Your task to perform on an android device: What's the news in Cambodia? Image 0: 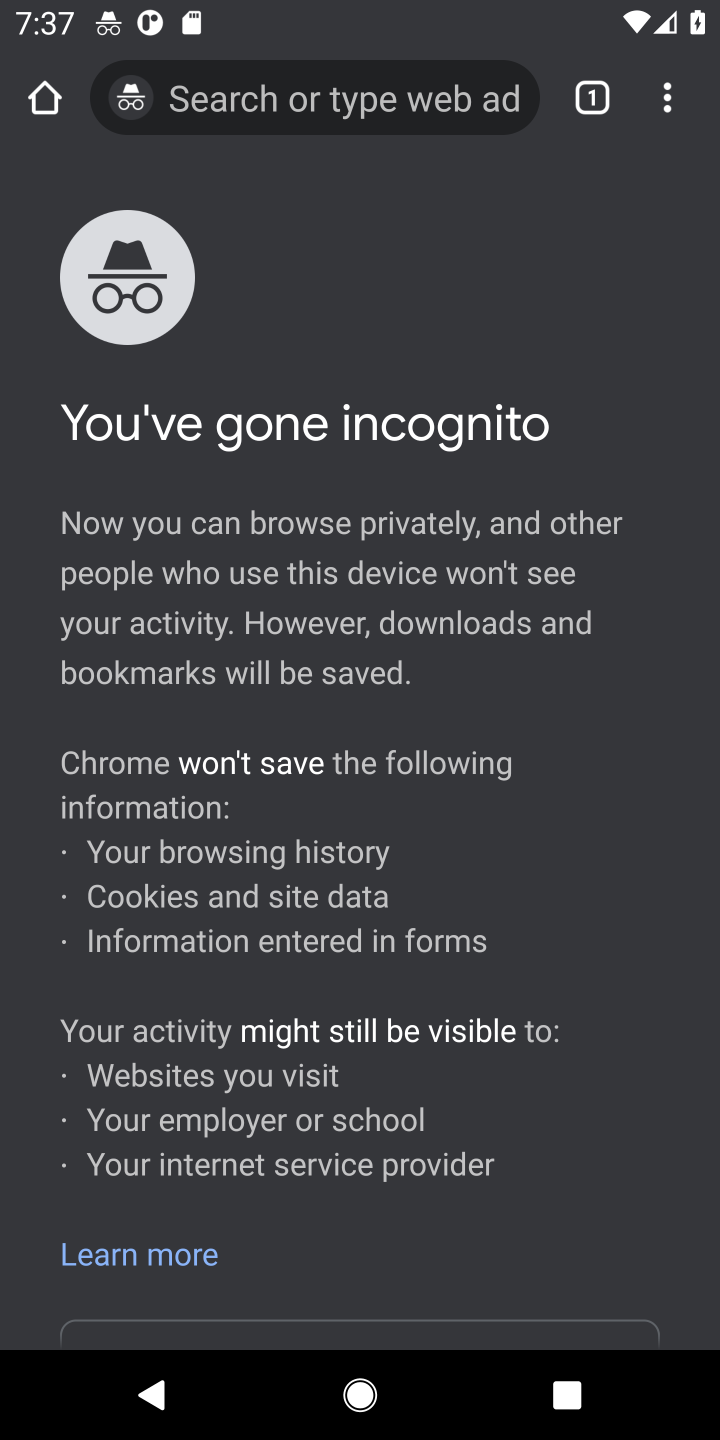
Step 0: press home button
Your task to perform on an android device: What's the news in Cambodia? Image 1: 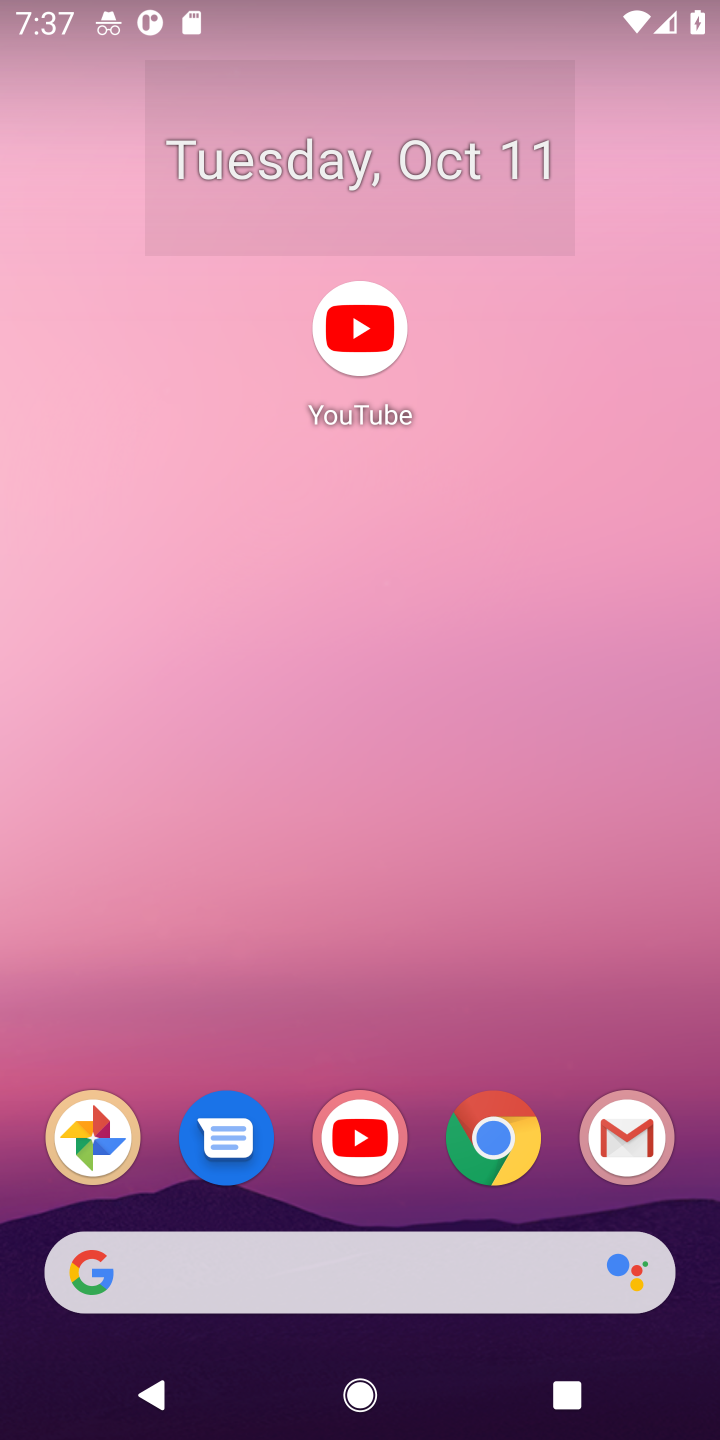
Step 1: click (475, 1130)
Your task to perform on an android device: What's the news in Cambodia? Image 2: 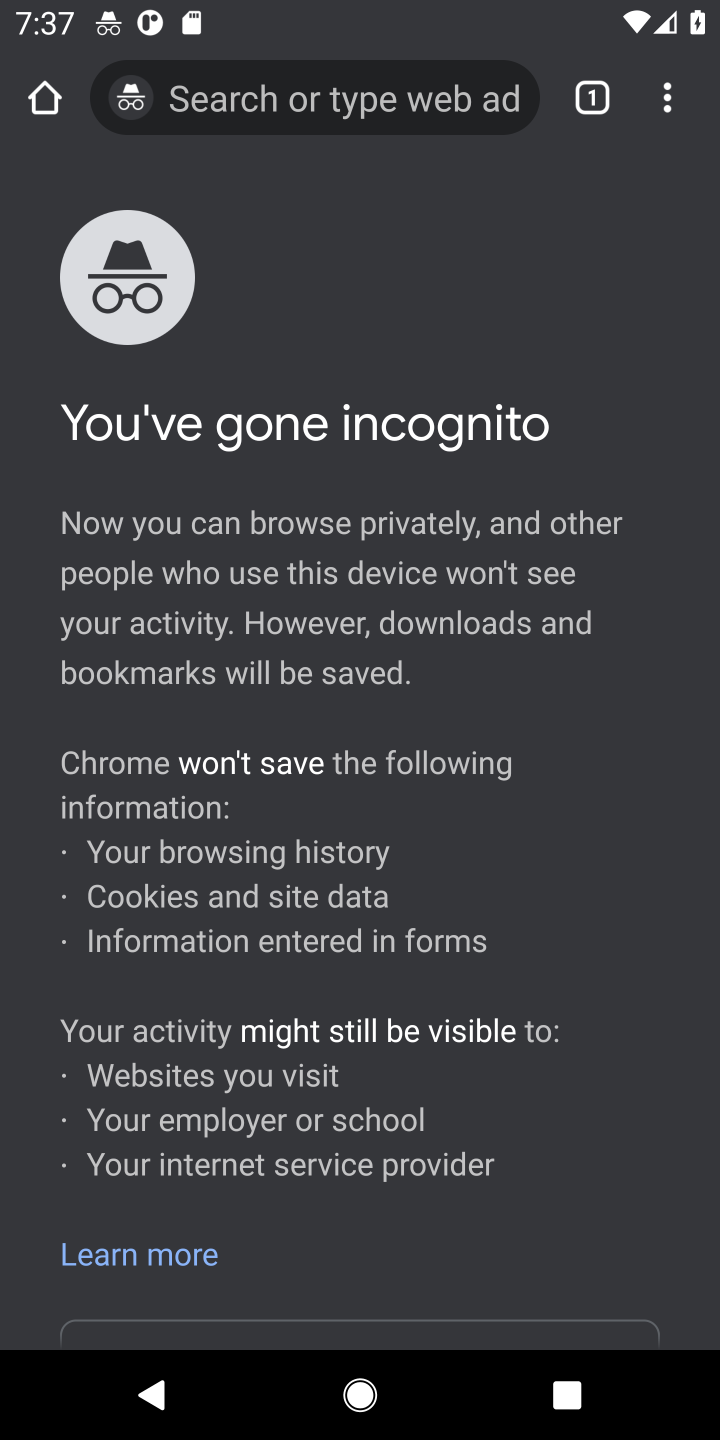
Step 2: click (298, 86)
Your task to perform on an android device: What's the news in Cambodia? Image 3: 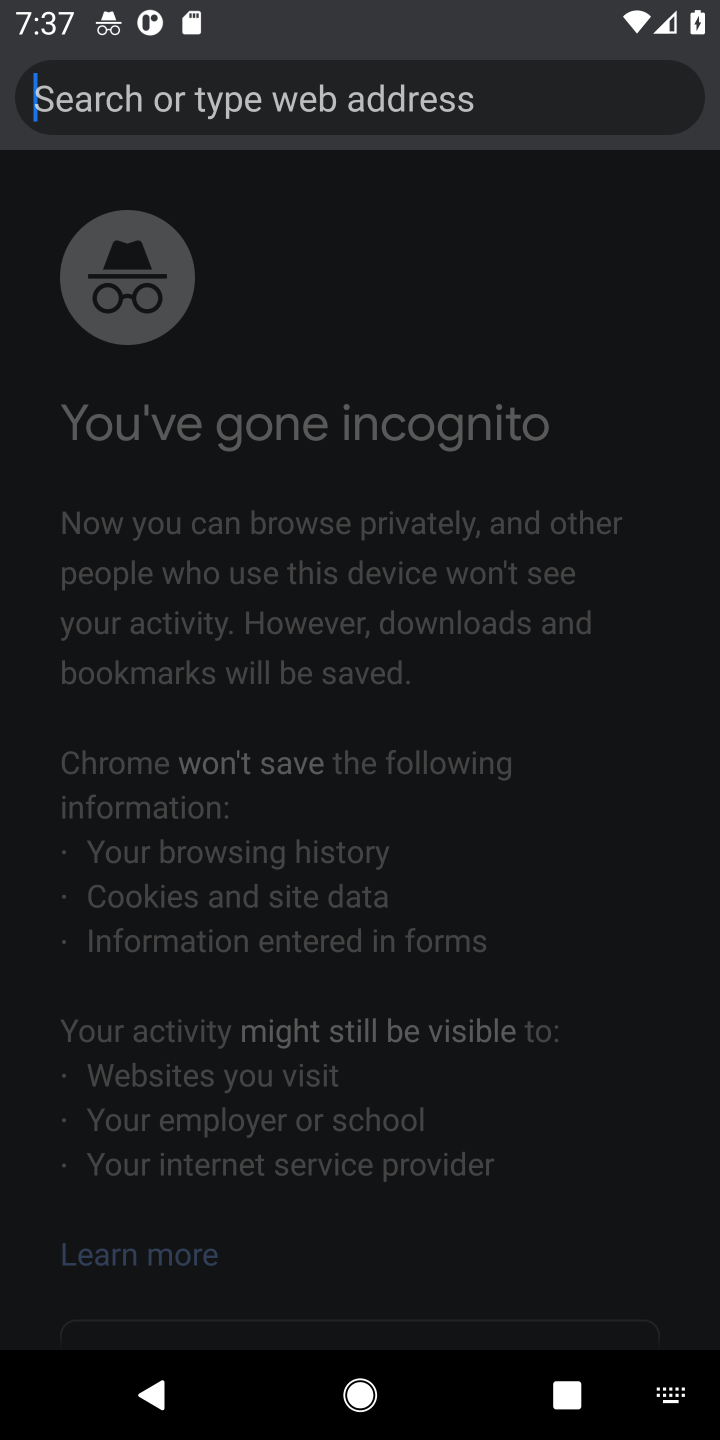
Step 3: click (293, 107)
Your task to perform on an android device: What's the news in Cambodia? Image 4: 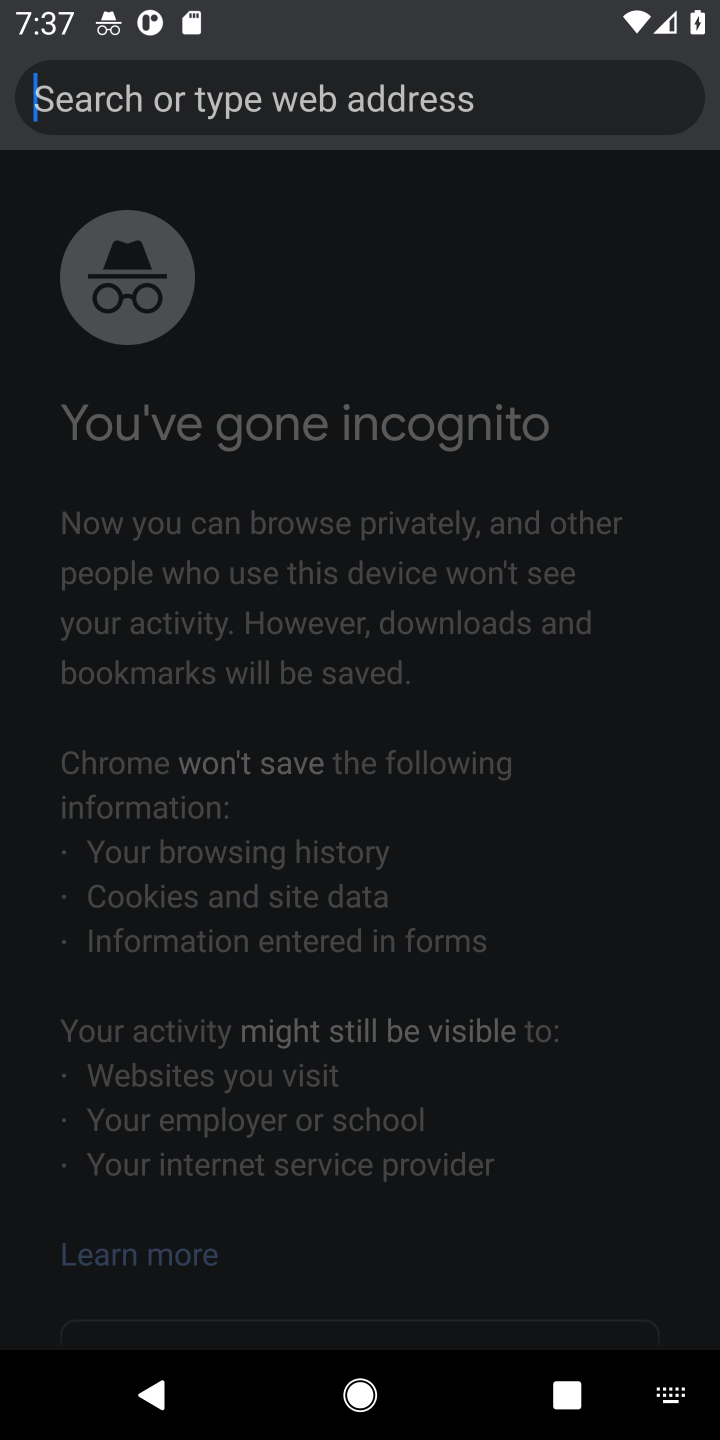
Step 4: type "whats the  new"
Your task to perform on an android device: What's the news in Cambodia? Image 5: 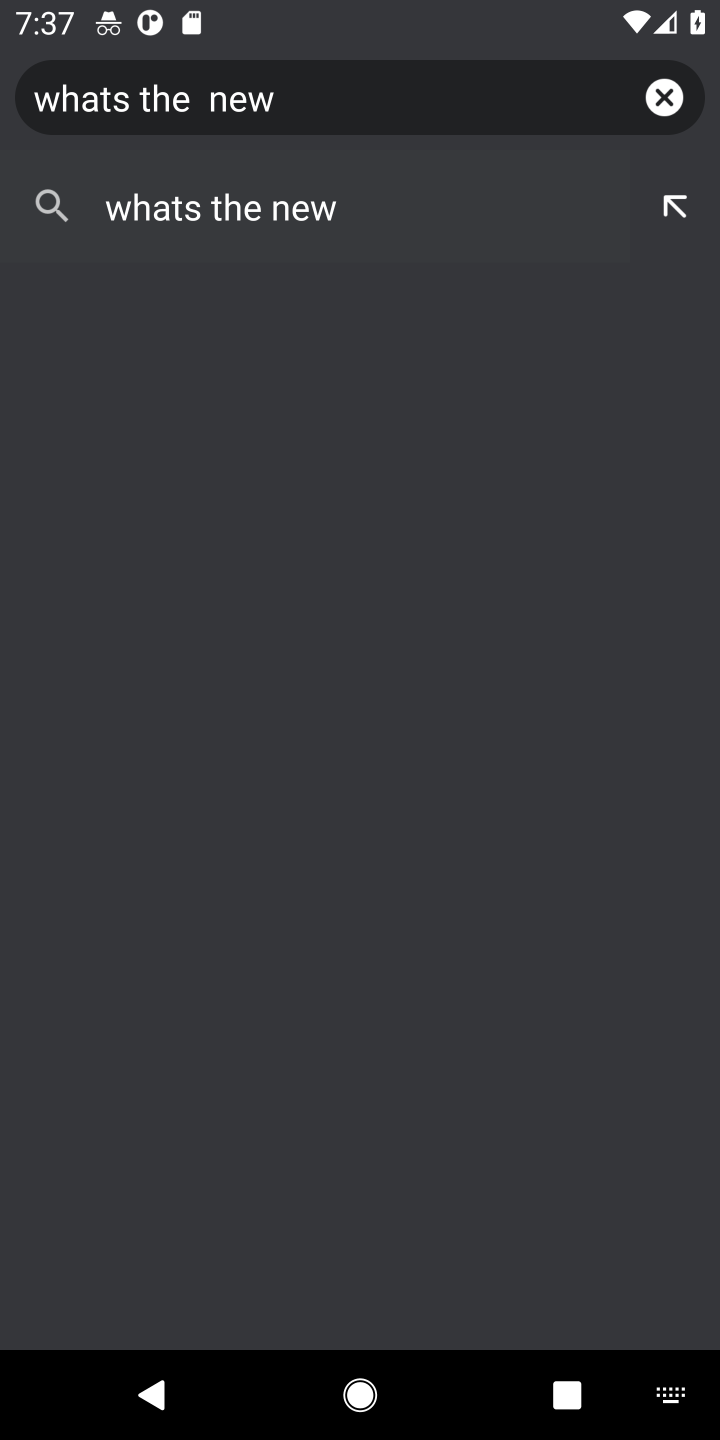
Step 5: click (674, 104)
Your task to perform on an android device: What's the news in Cambodia? Image 6: 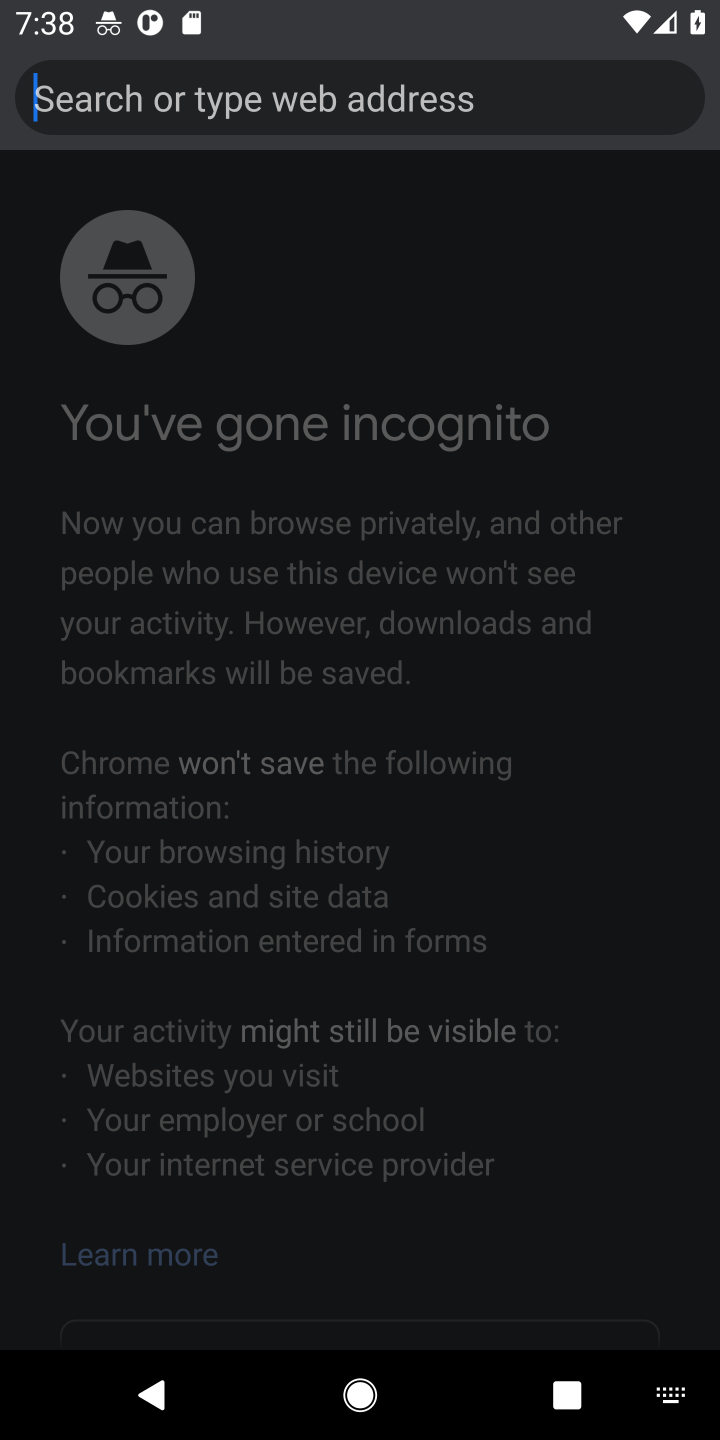
Step 6: type "whats the news in combodia"
Your task to perform on an android device: What's the news in Cambodia? Image 7: 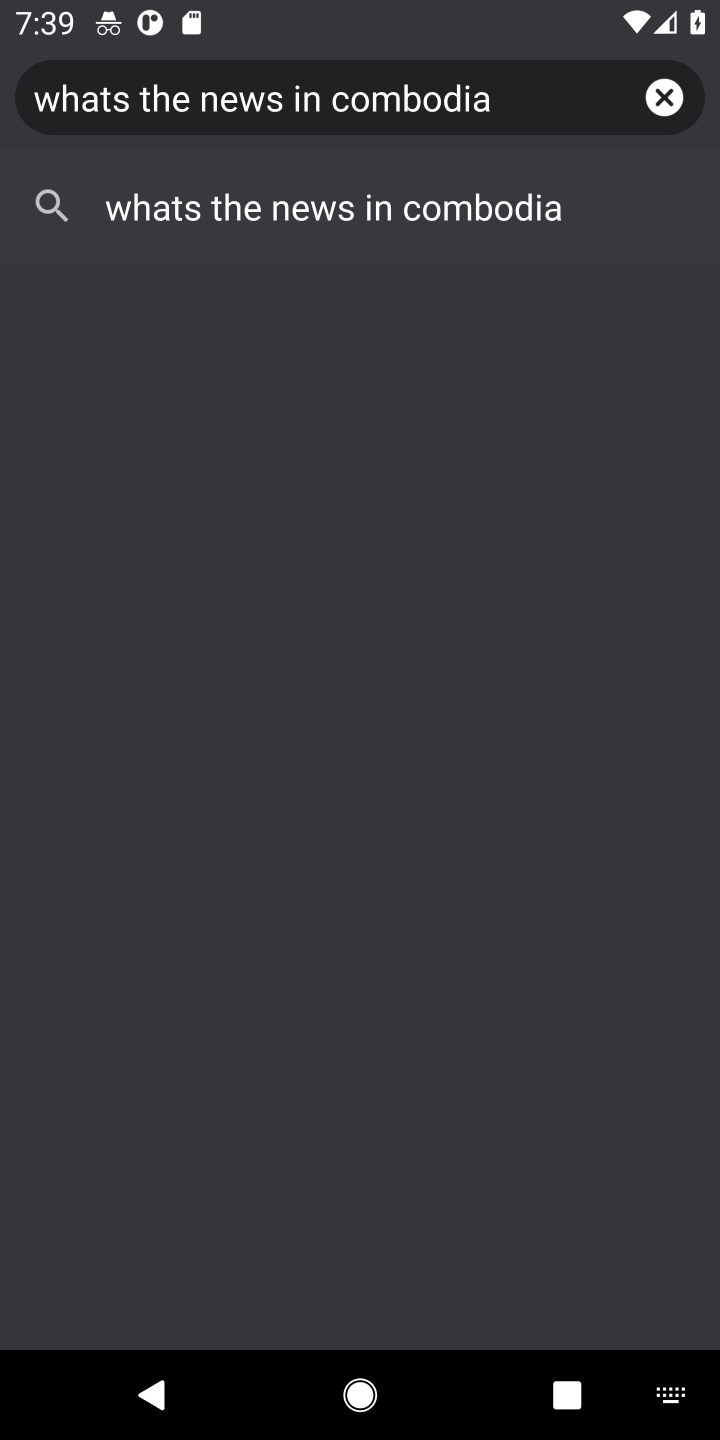
Step 7: type "whats the news in combodia "
Your task to perform on an android device: What's the news in Cambodia? Image 8: 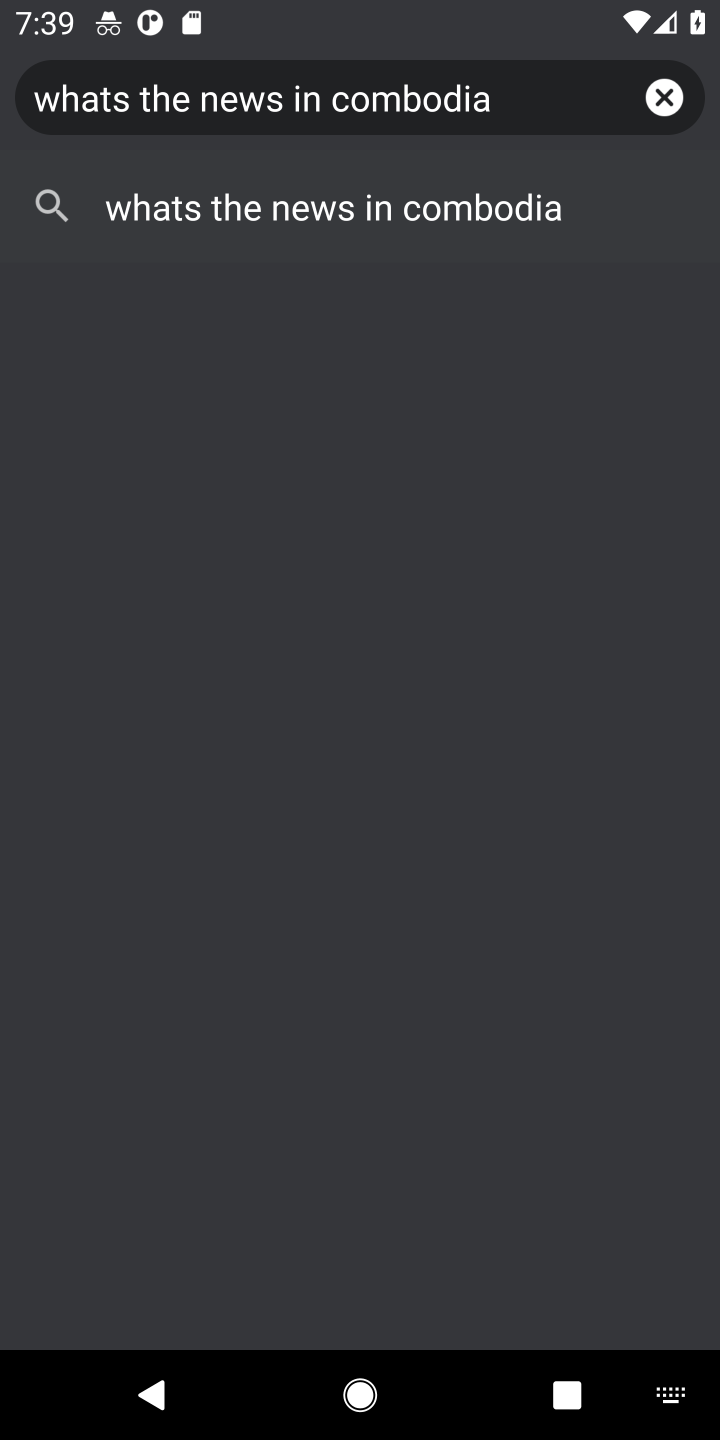
Step 8: click (139, 836)
Your task to perform on an android device: What's the news in Cambodia? Image 9: 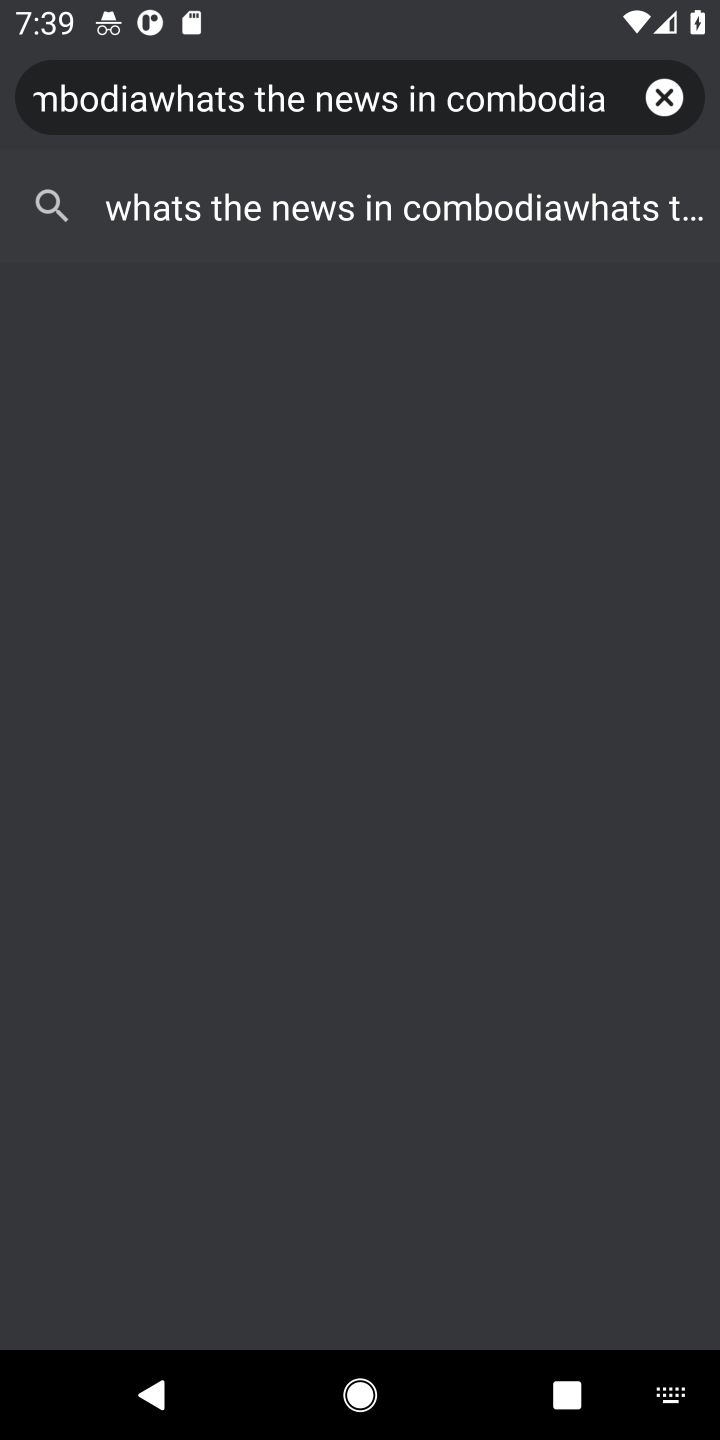
Step 9: type ""
Your task to perform on an android device: What's the news in Cambodia? Image 10: 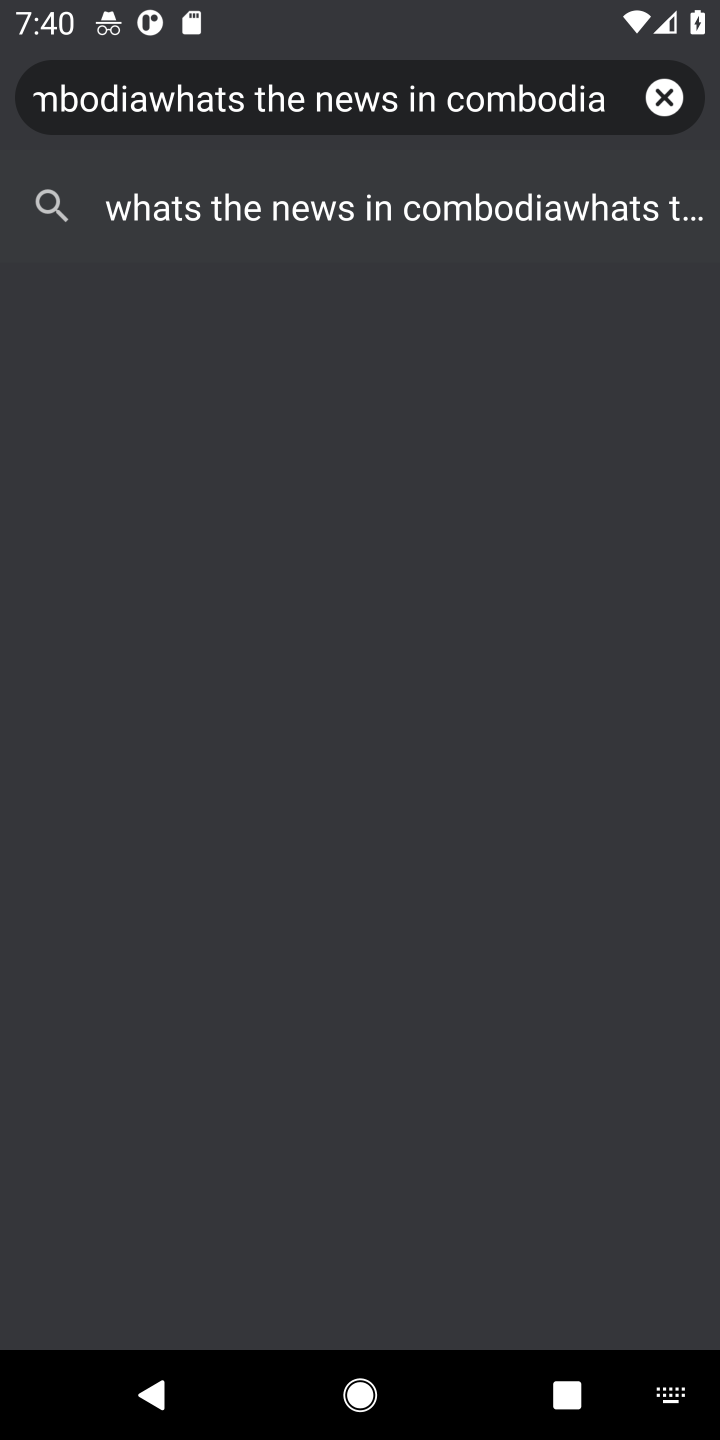
Step 10: click (656, 112)
Your task to perform on an android device: What's the news in Cambodia? Image 11: 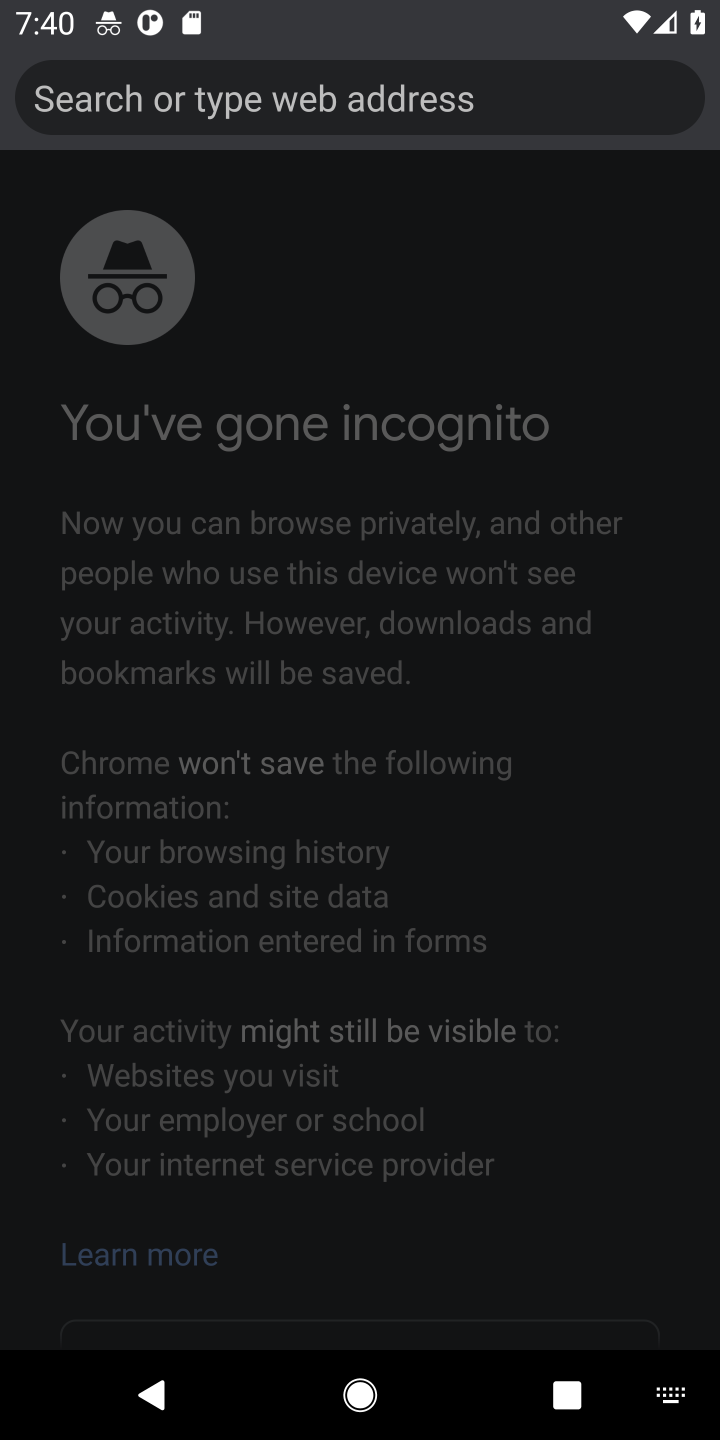
Step 11: press back button
Your task to perform on an android device: What's the news in Cambodia? Image 12: 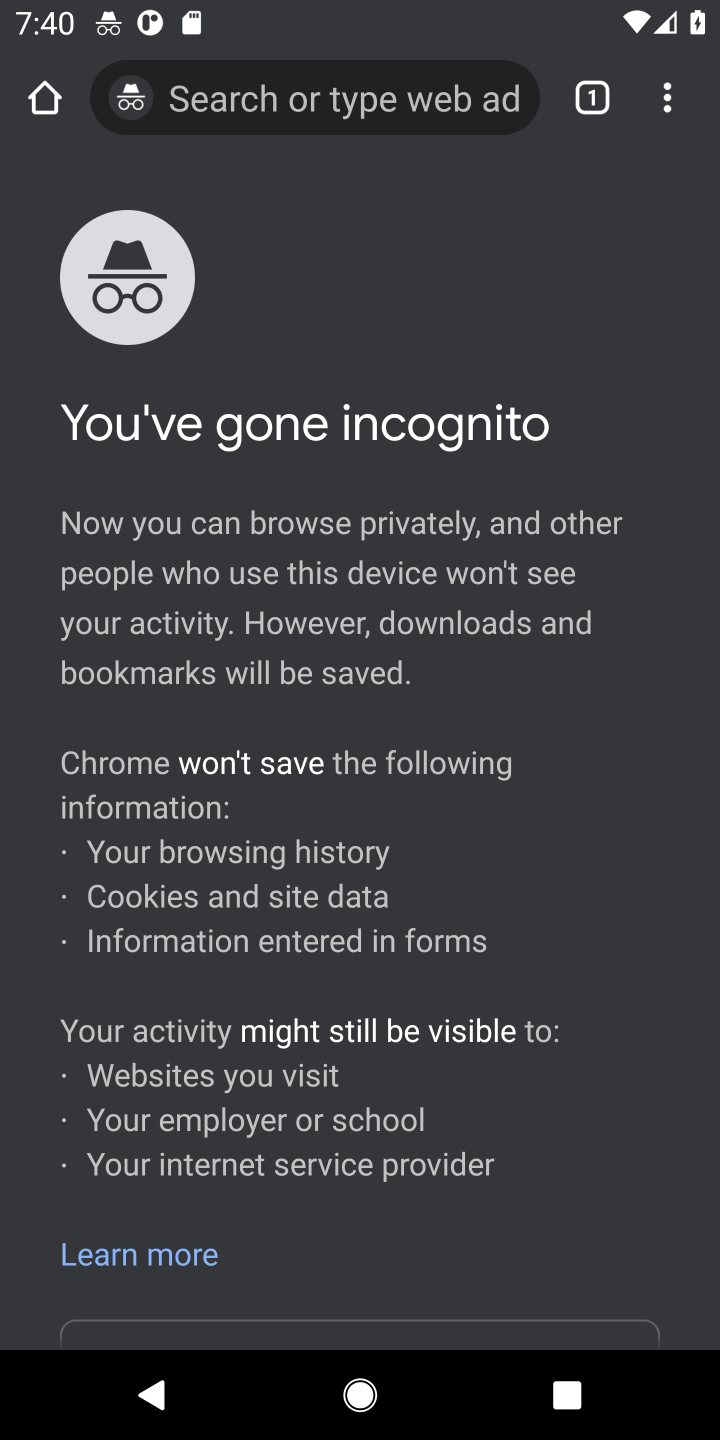
Step 12: click (589, 93)
Your task to perform on an android device: What's the news in Cambodia? Image 13: 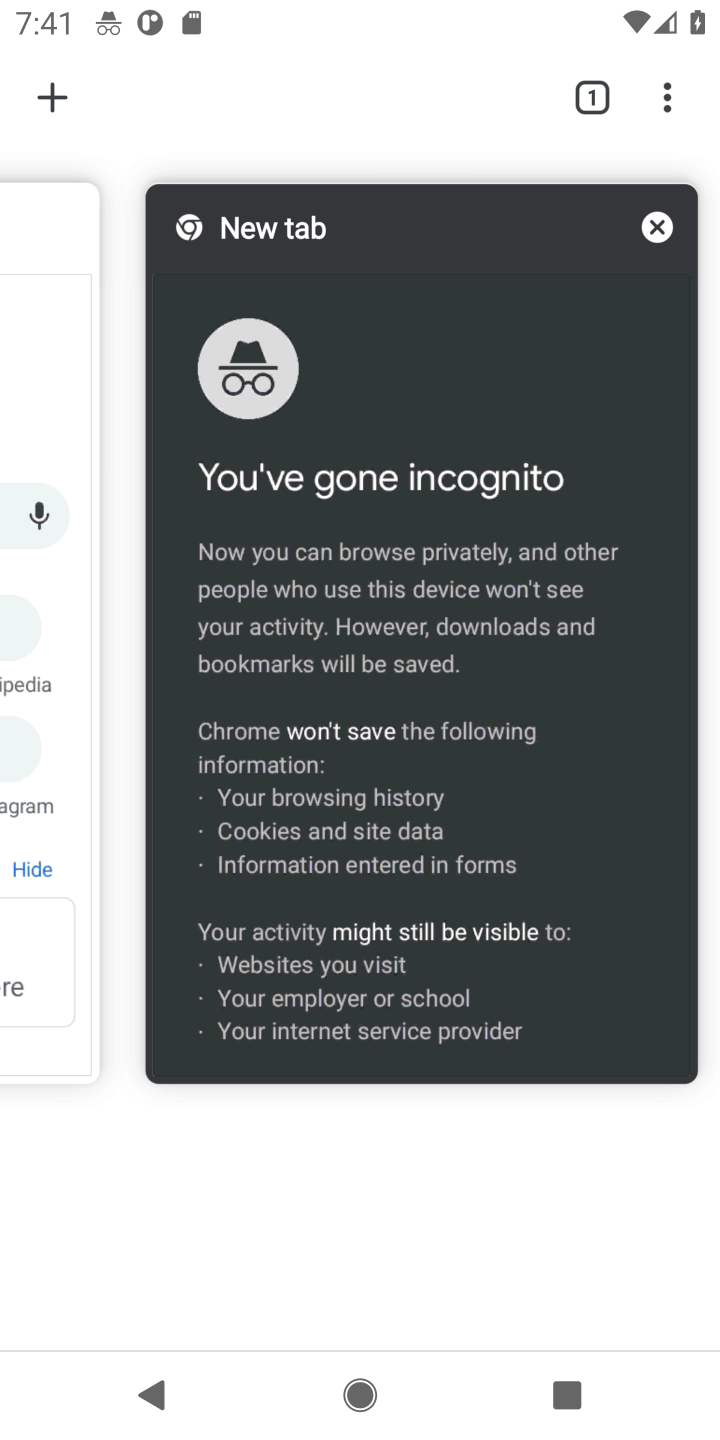
Step 13: click (654, 224)
Your task to perform on an android device: What's the news in Cambodia? Image 14: 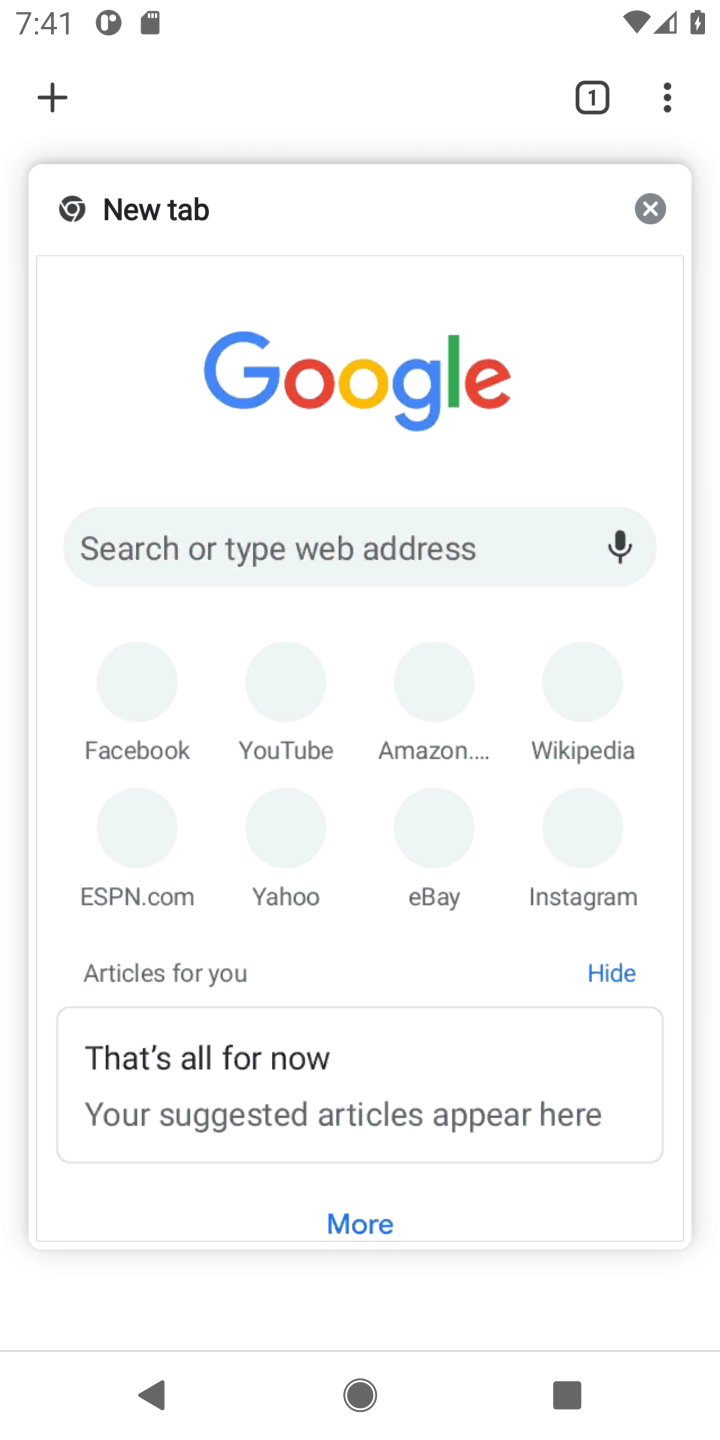
Step 14: click (348, 170)
Your task to perform on an android device: What's the news in Cambodia? Image 15: 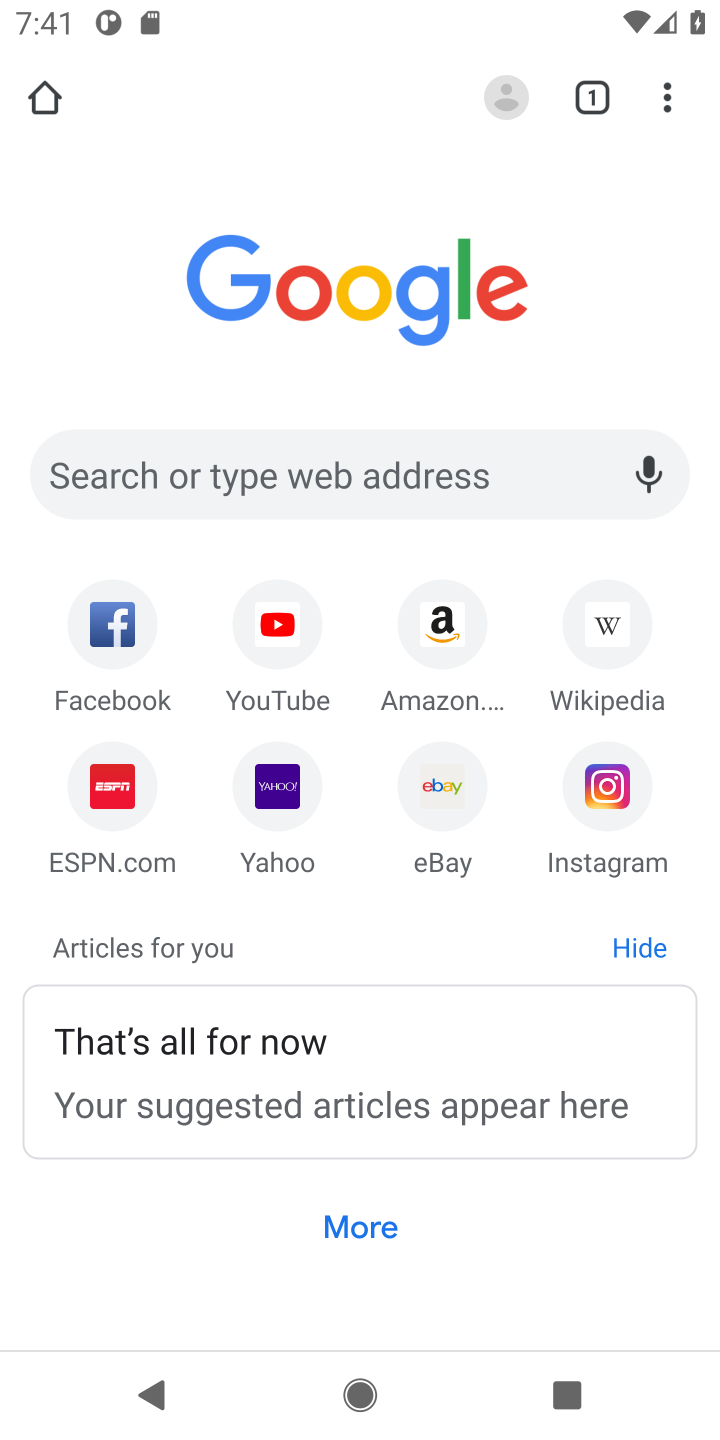
Step 15: click (393, 479)
Your task to perform on an android device: What's the news in Cambodia? Image 16: 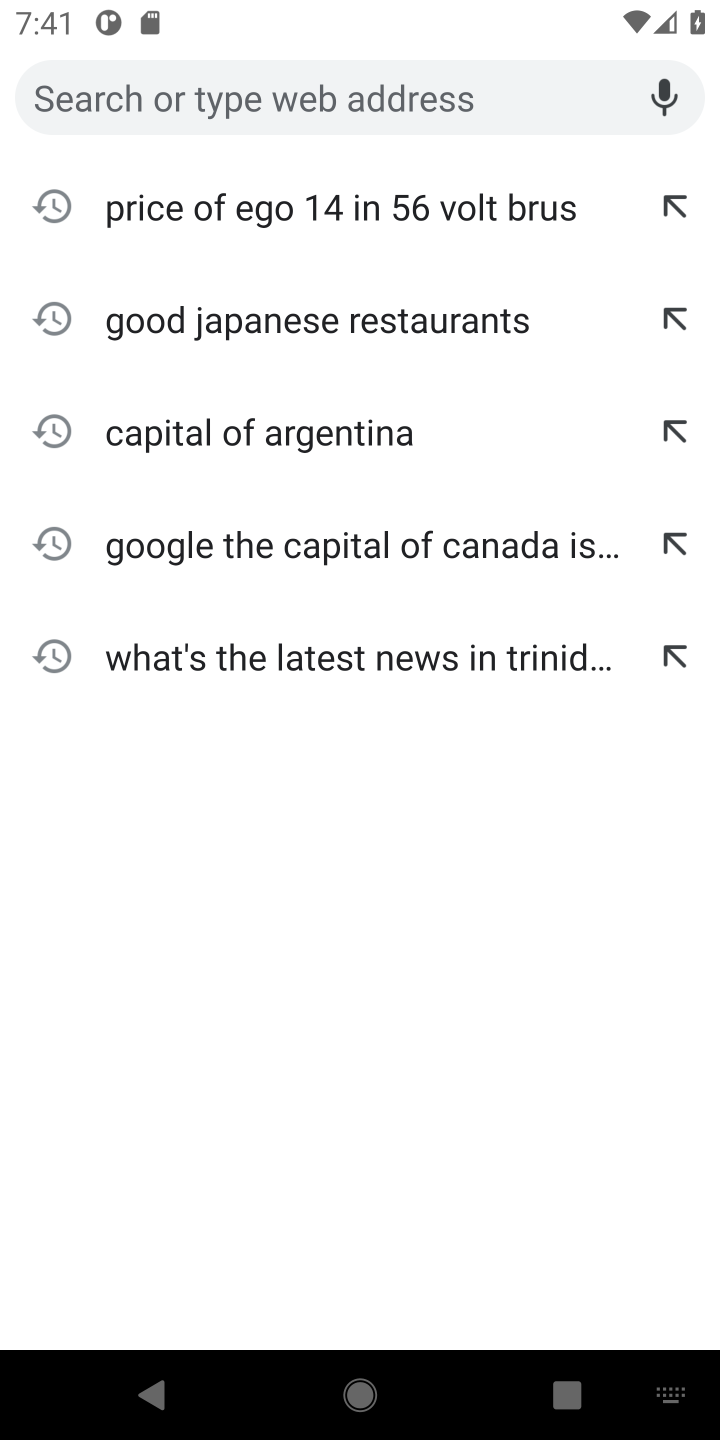
Step 16: type "What's the news in Cambodia?"
Your task to perform on an android device: What's the news in Cambodia? Image 17: 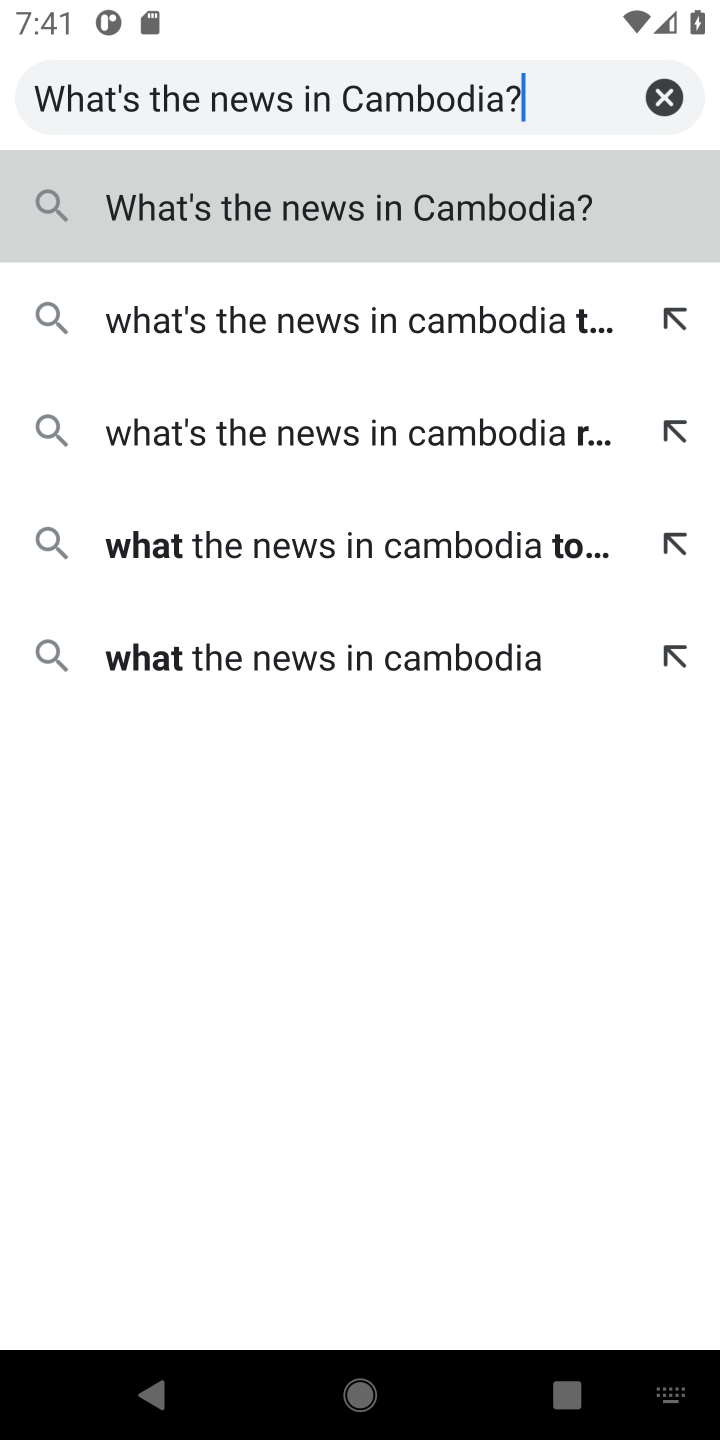
Step 17: click (239, 202)
Your task to perform on an android device: What's the news in Cambodia? Image 18: 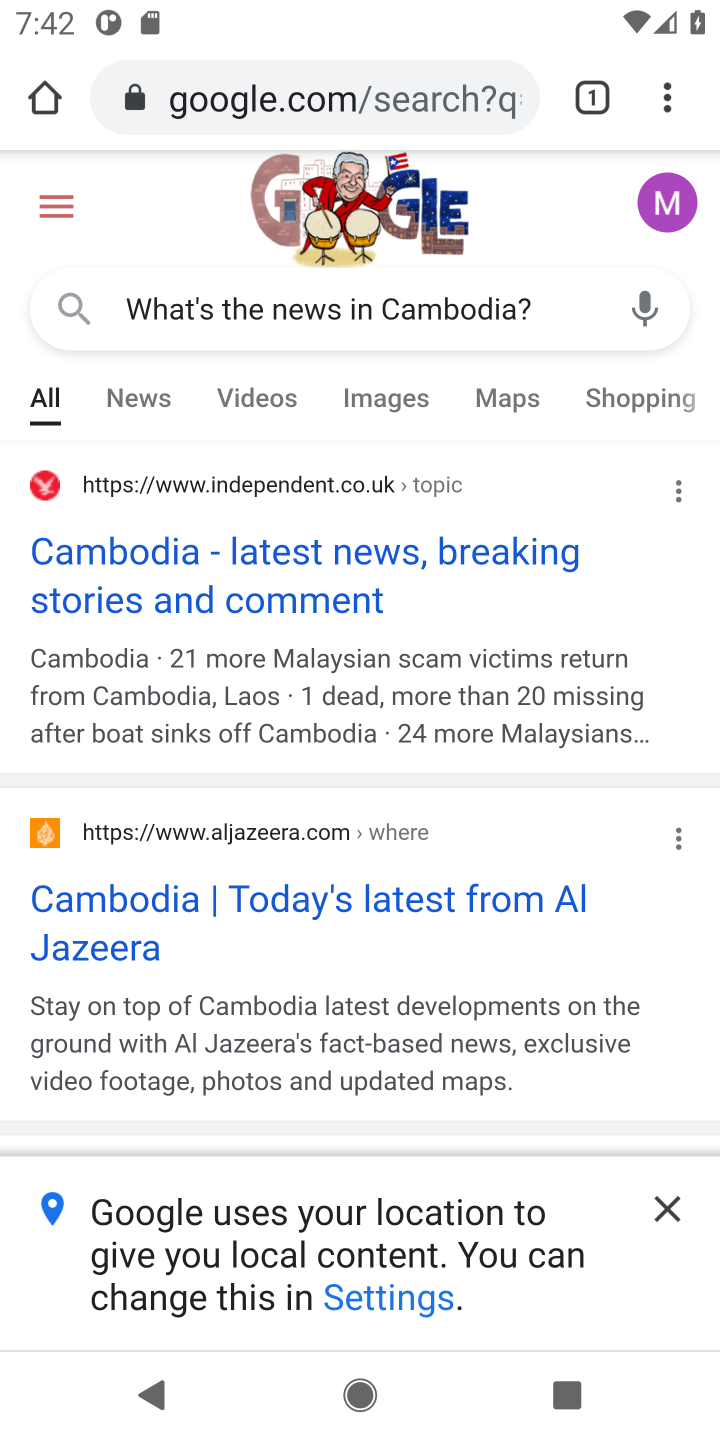
Step 18: click (660, 1205)
Your task to perform on an android device: What's the news in Cambodia? Image 19: 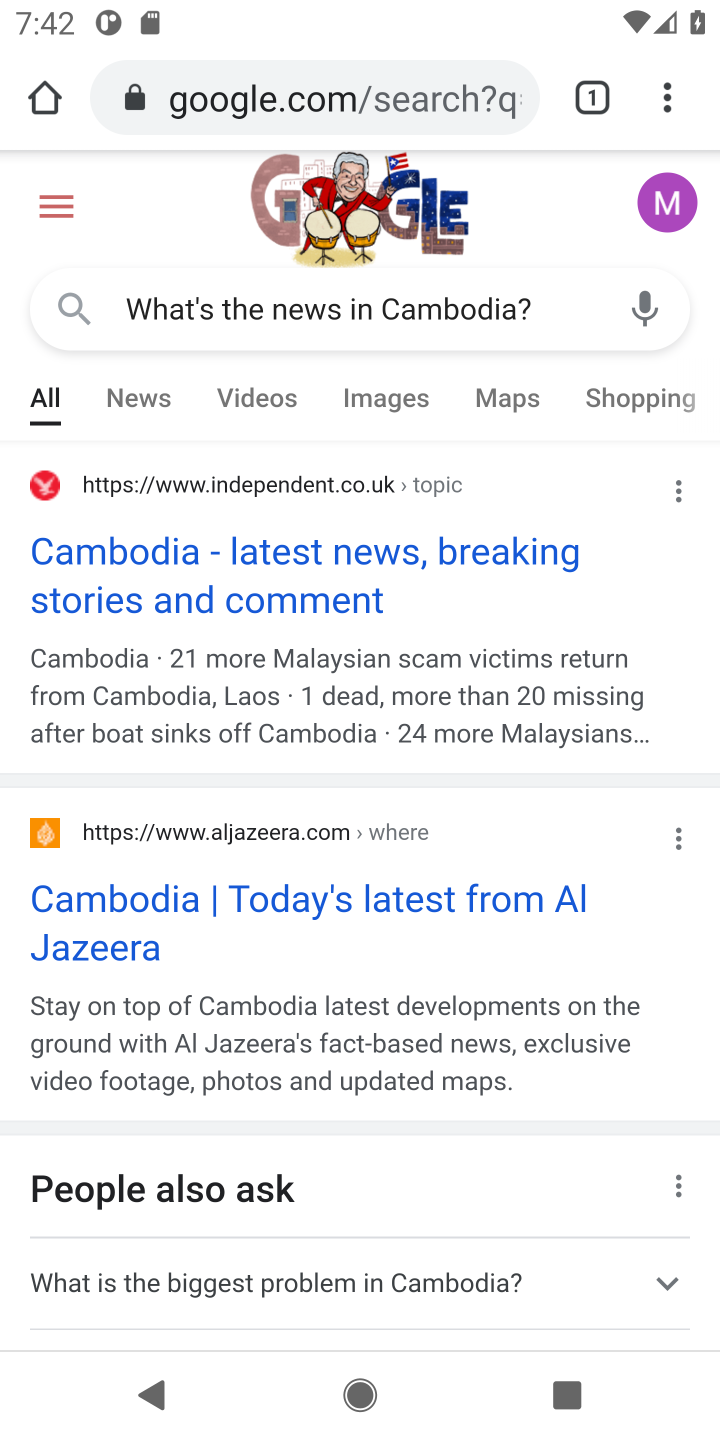
Step 19: click (128, 401)
Your task to perform on an android device: What's the news in Cambodia? Image 20: 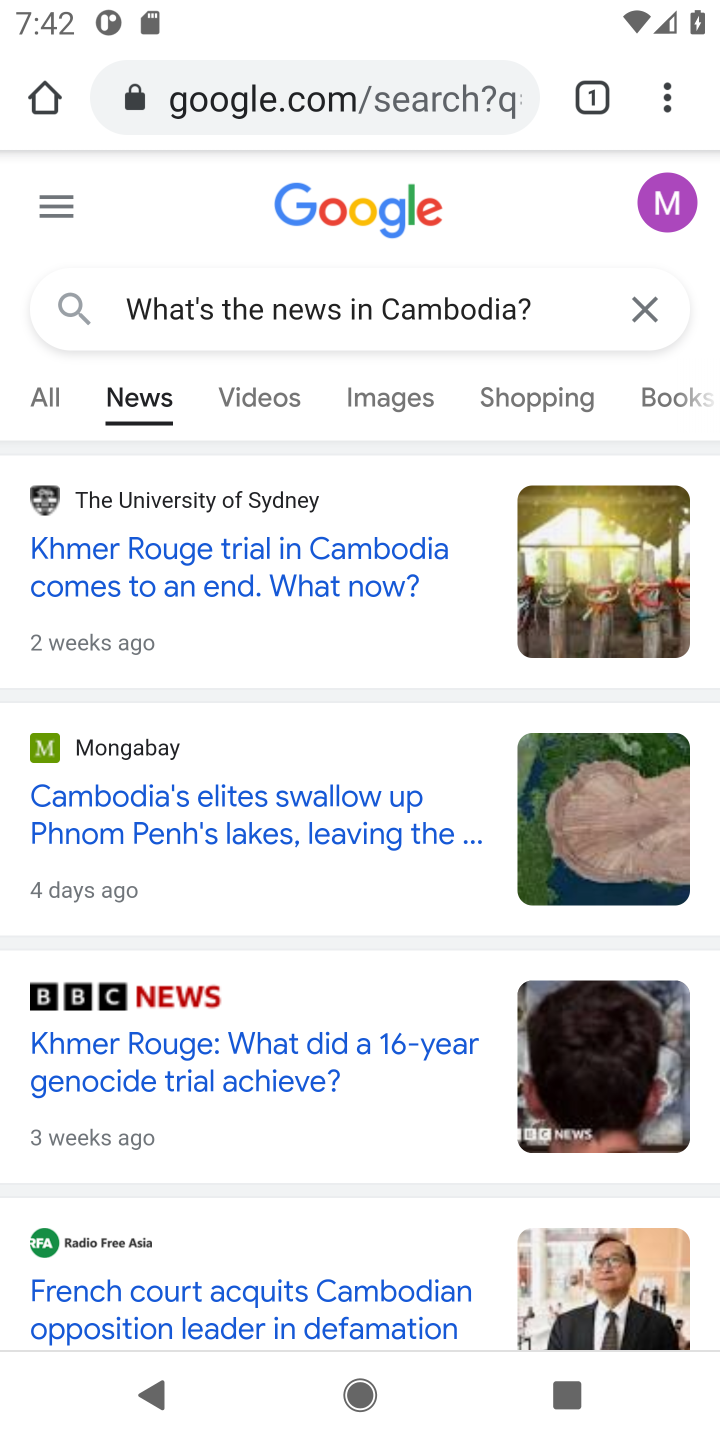
Step 20: task complete